Your task to perform on an android device: Clear the shopping cart on amazon. Add razer kraken to the cart on amazon Image 0: 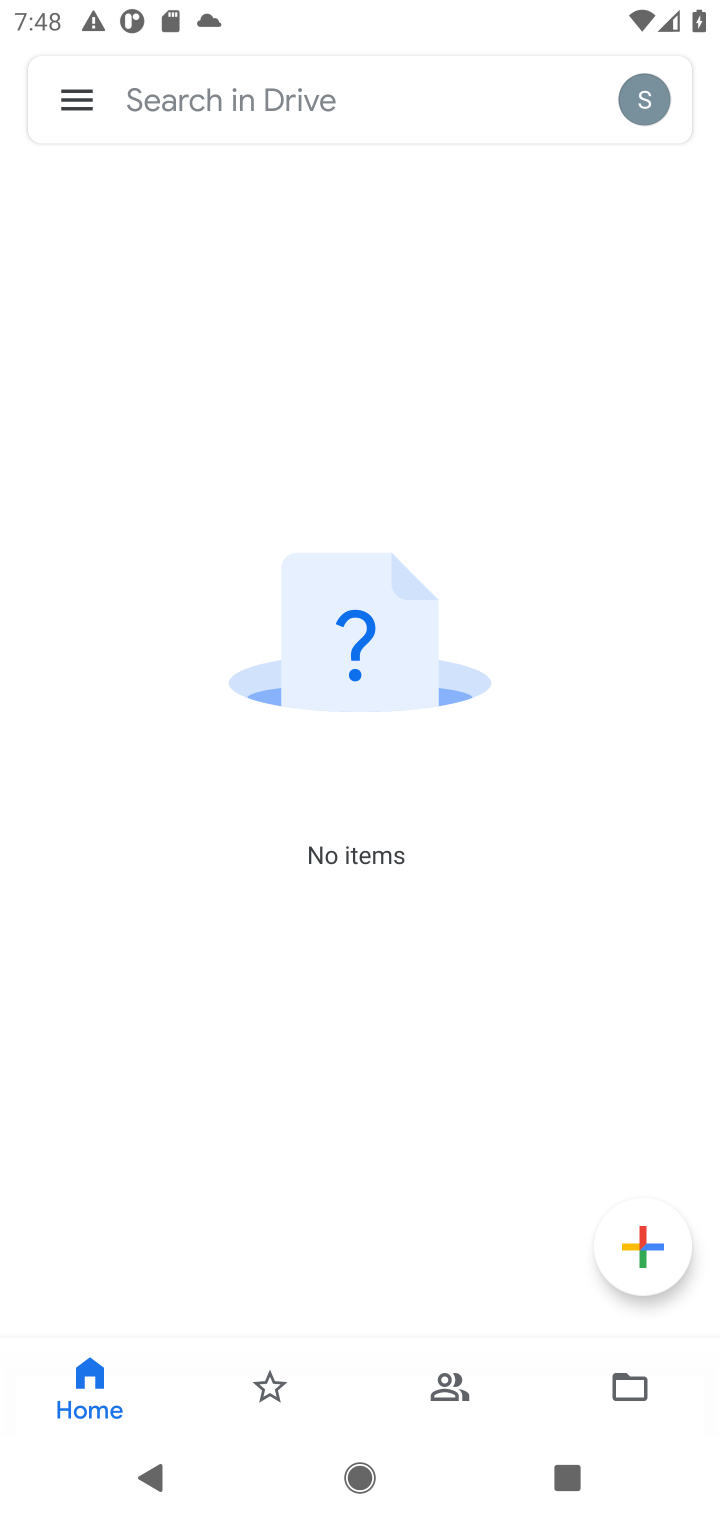
Step 0: press home button
Your task to perform on an android device: Clear the shopping cart on amazon. Add razer kraken to the cart on amazon Image 1: 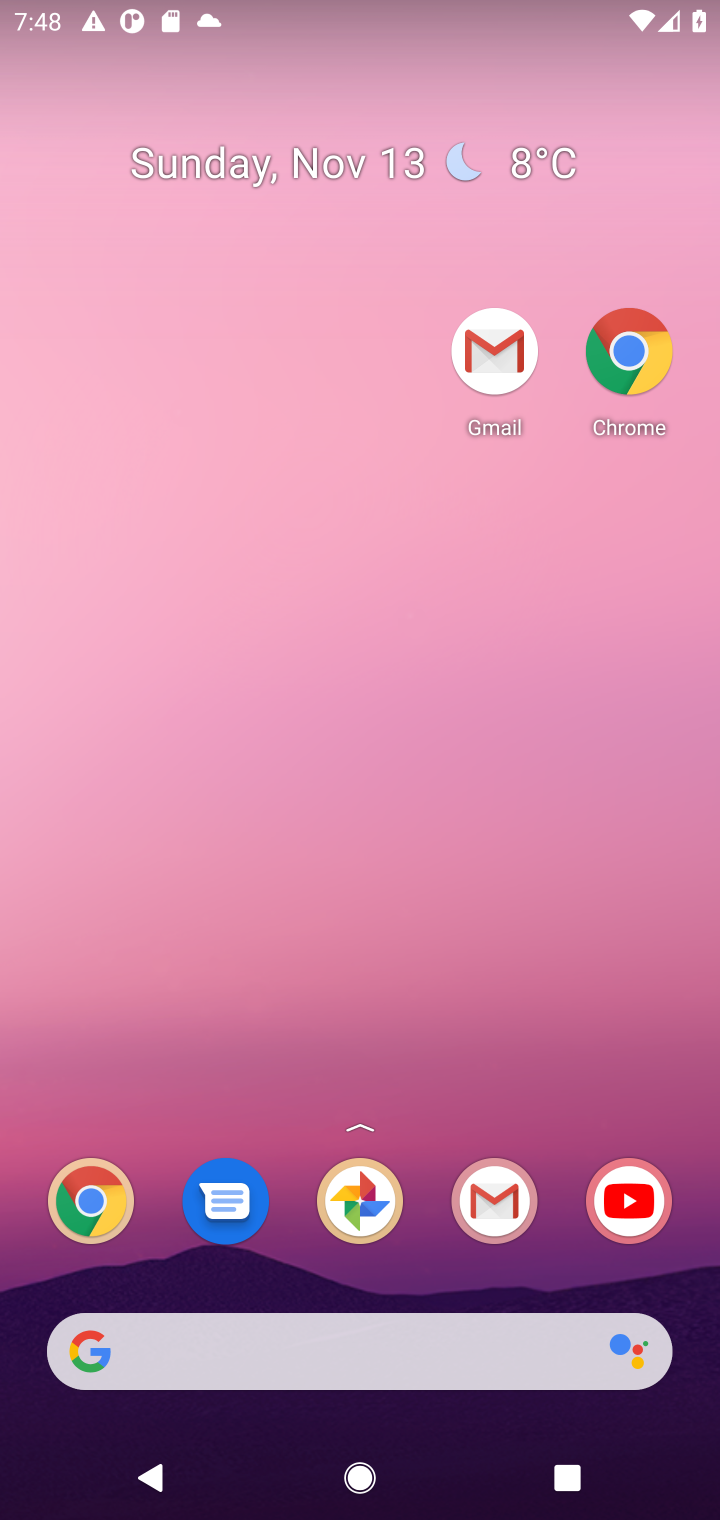
Step 1: drag from (437, 1261) to (337, 438)
Your task to perform on an android device: Clear the shopping cart on amazon. Add razer kraken to the cart on amazon Image 2: 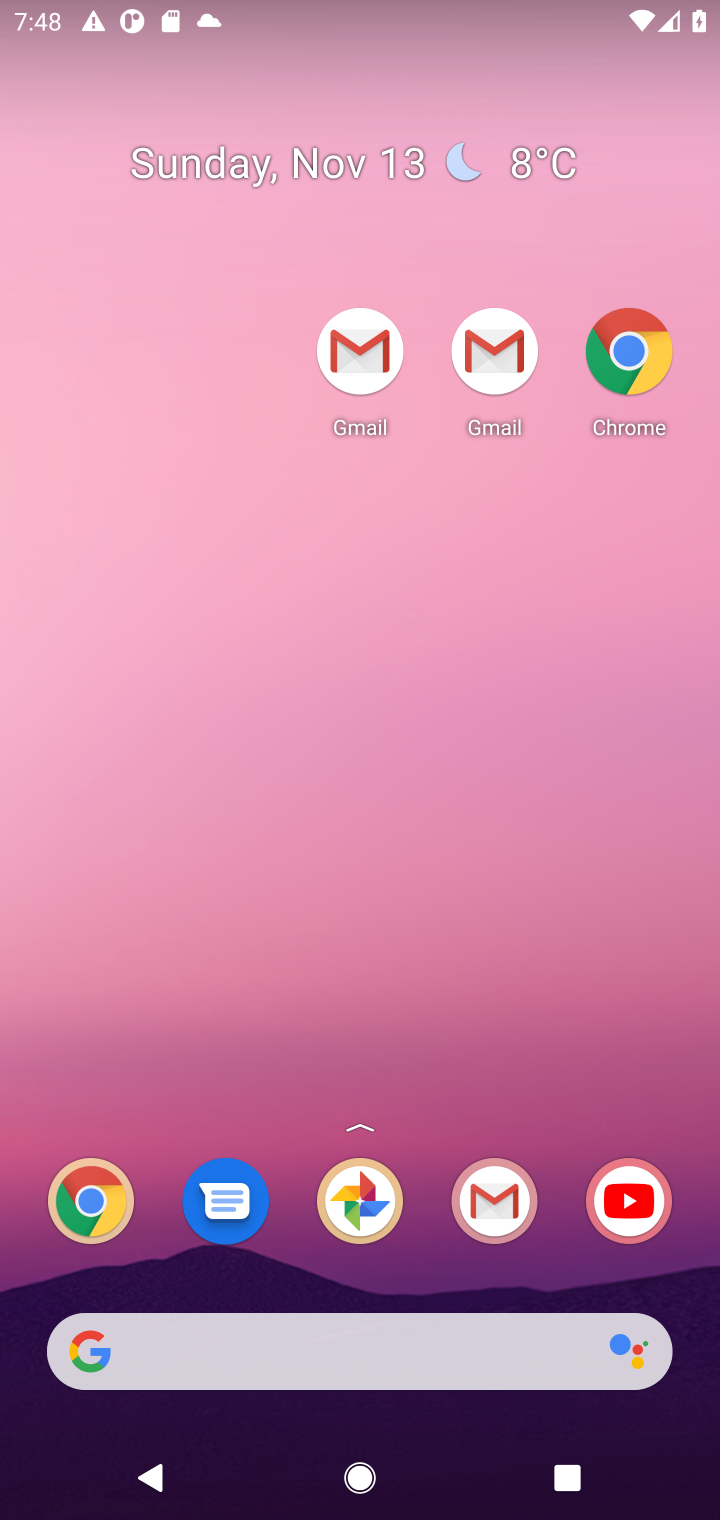
Step 2: drag from (428, 1284) to (294, 322)
Your task to perform on an android device: Clear the shopping cart on amazon. Add razer kraken to the cart on amazon Image 3: 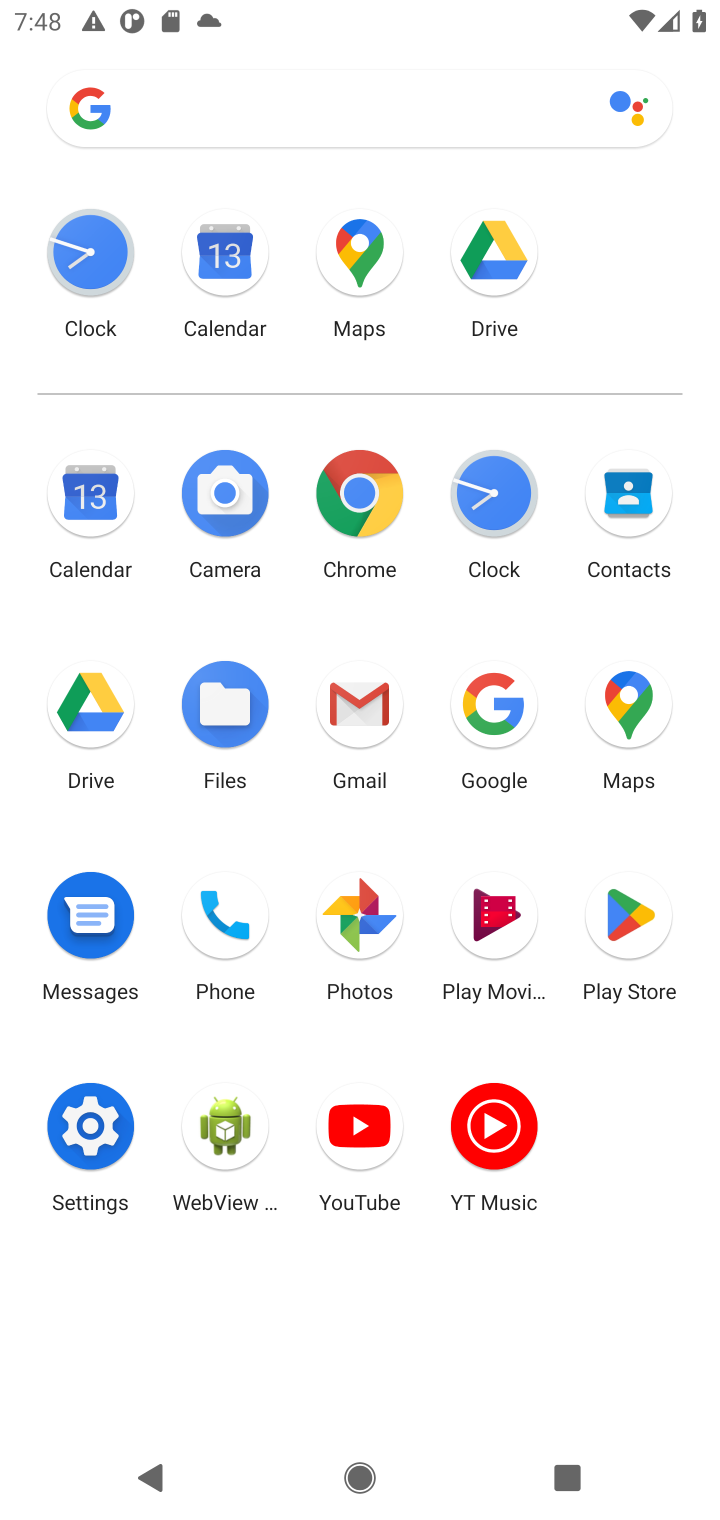
Step 3: click (362, 500)
Your task to perform on an android device: Clear the shopping cart on amazon. Add razer kraken to the cart on amazon Image 4: 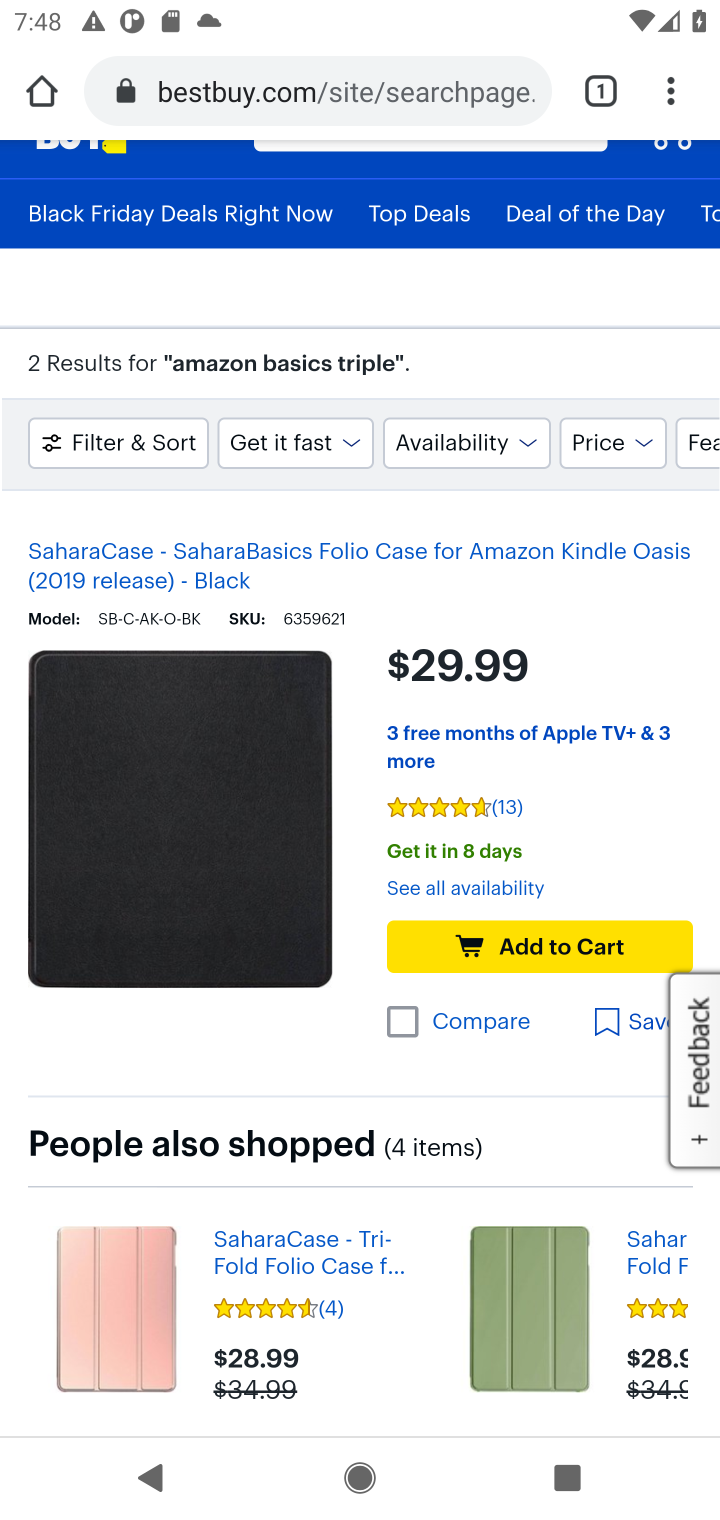
Step 4: click (385, 87)
Your task to perform on an android device: Clear the shopping cart on amazon. Add razer kraken to the cart on amazon Image 5: 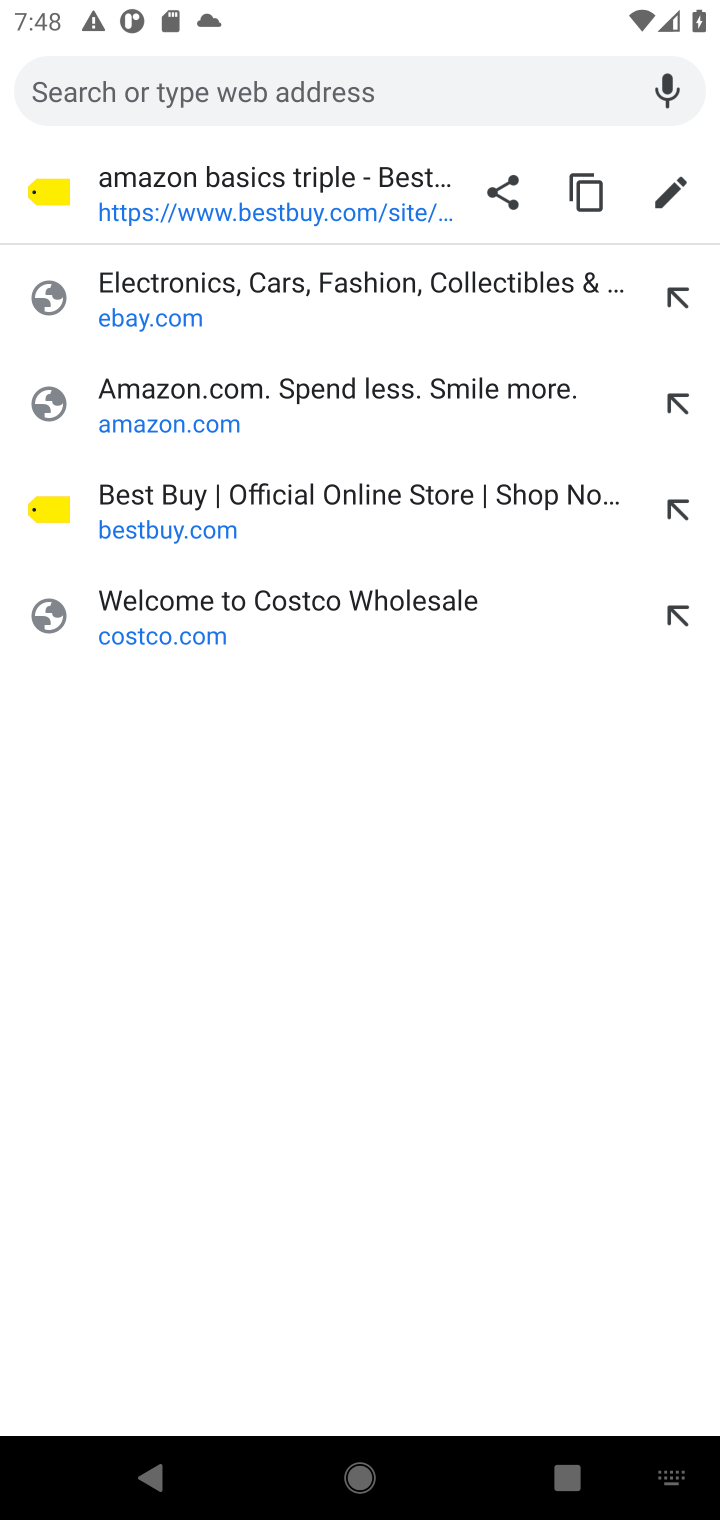
Step 5: type "amazon.com"
Your task to perform on an android device: Clear the shopping cart on amazon. Add razer kraken to the cart on amazon Image 6: 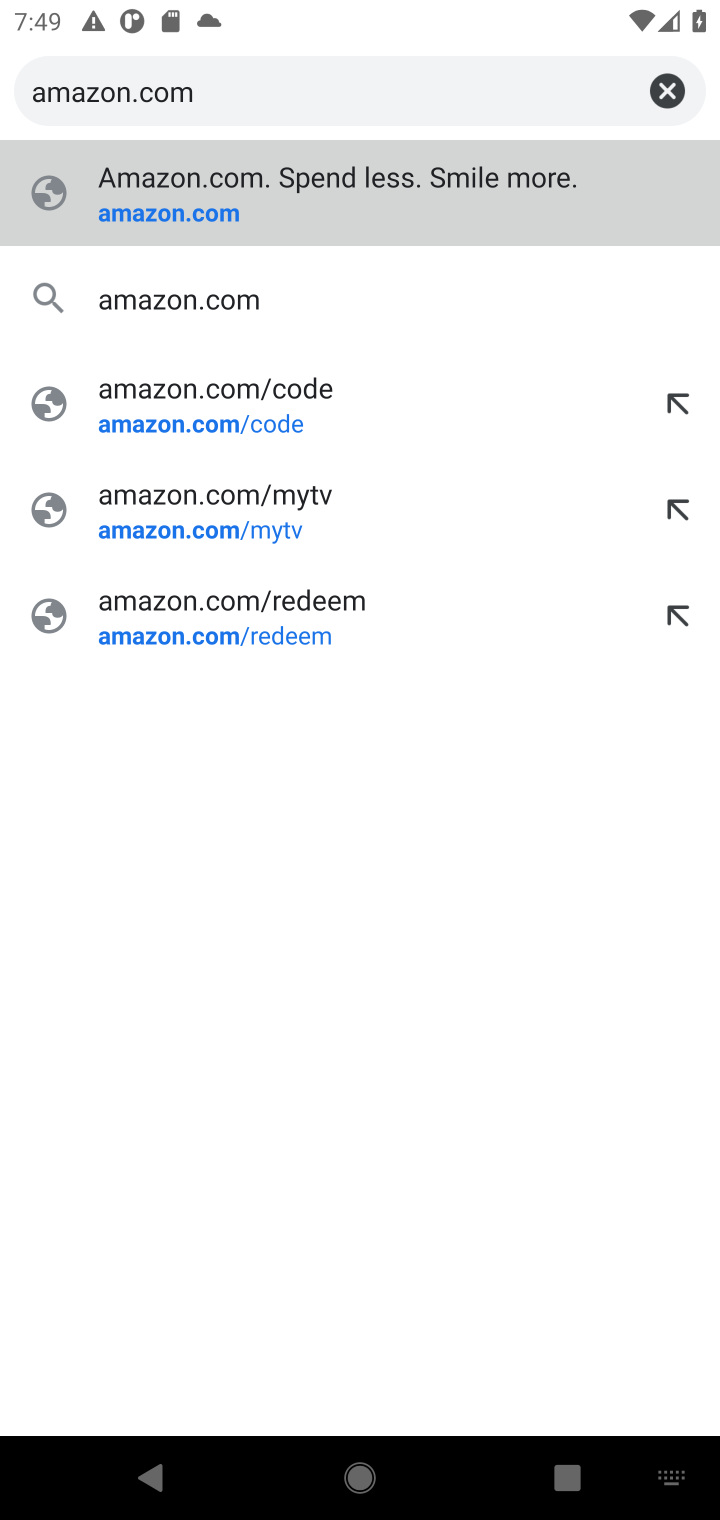
Step 6: press enter
Your task to perform on an android device: Clear the shopping cart on amazon. Add razer kraken to the cart on amazon Image 7: 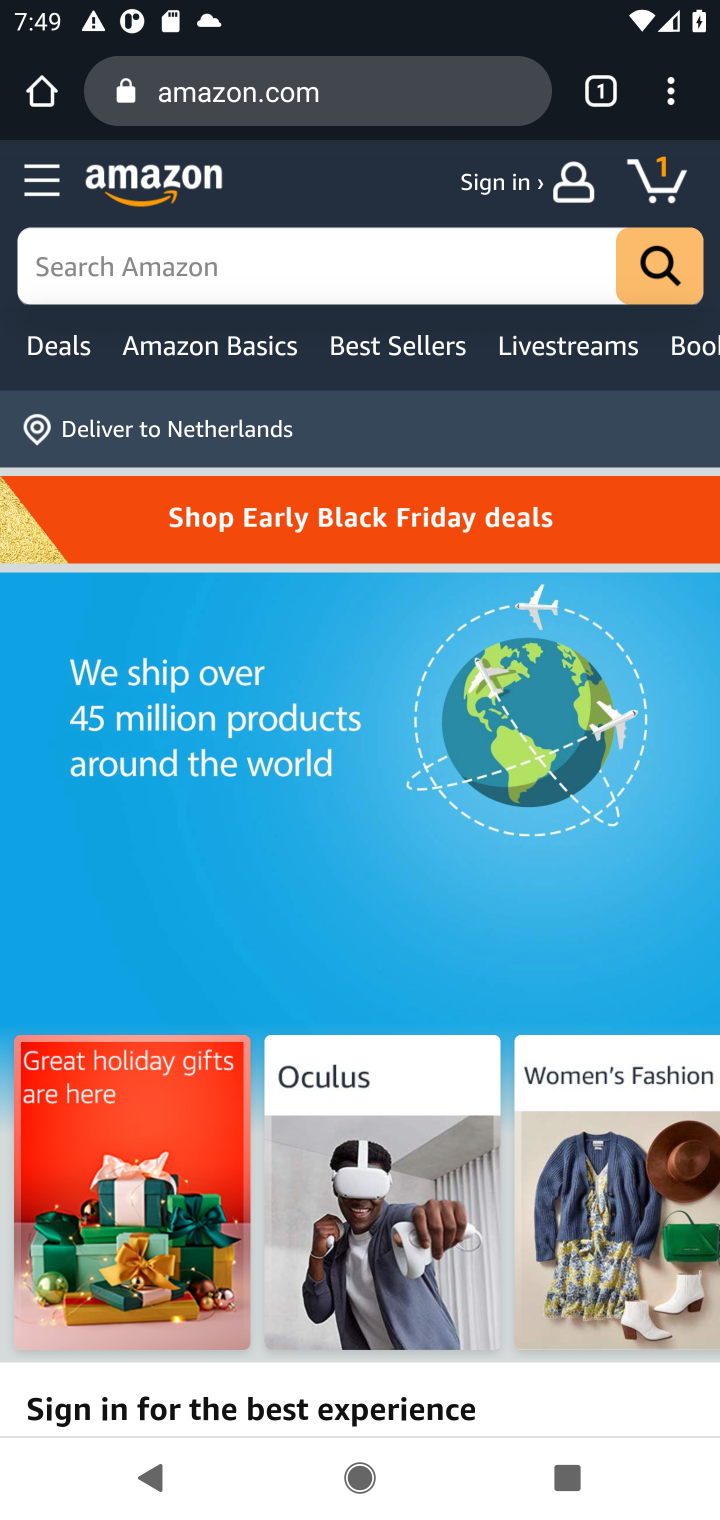
Step 7: click (671, 174)
Your task to perform on an android device: Clear the shopping cart on amazon. Add razer kraken to the cart on amazon Image 8: 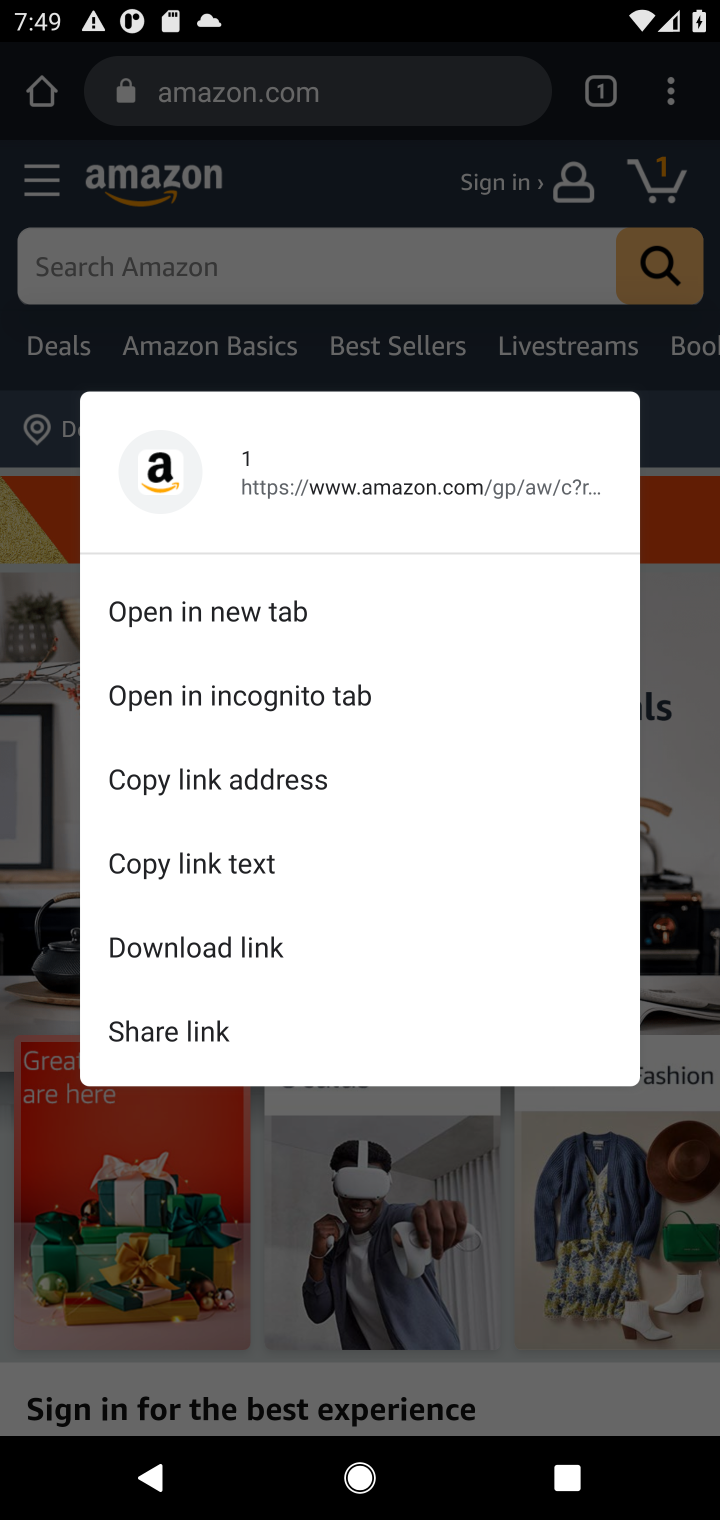
Step 8: click (675, 176)
Your task to perform on an android device: Clear the shopping cart on amazon. Add razer kraken to the cart on amazon Image 9: 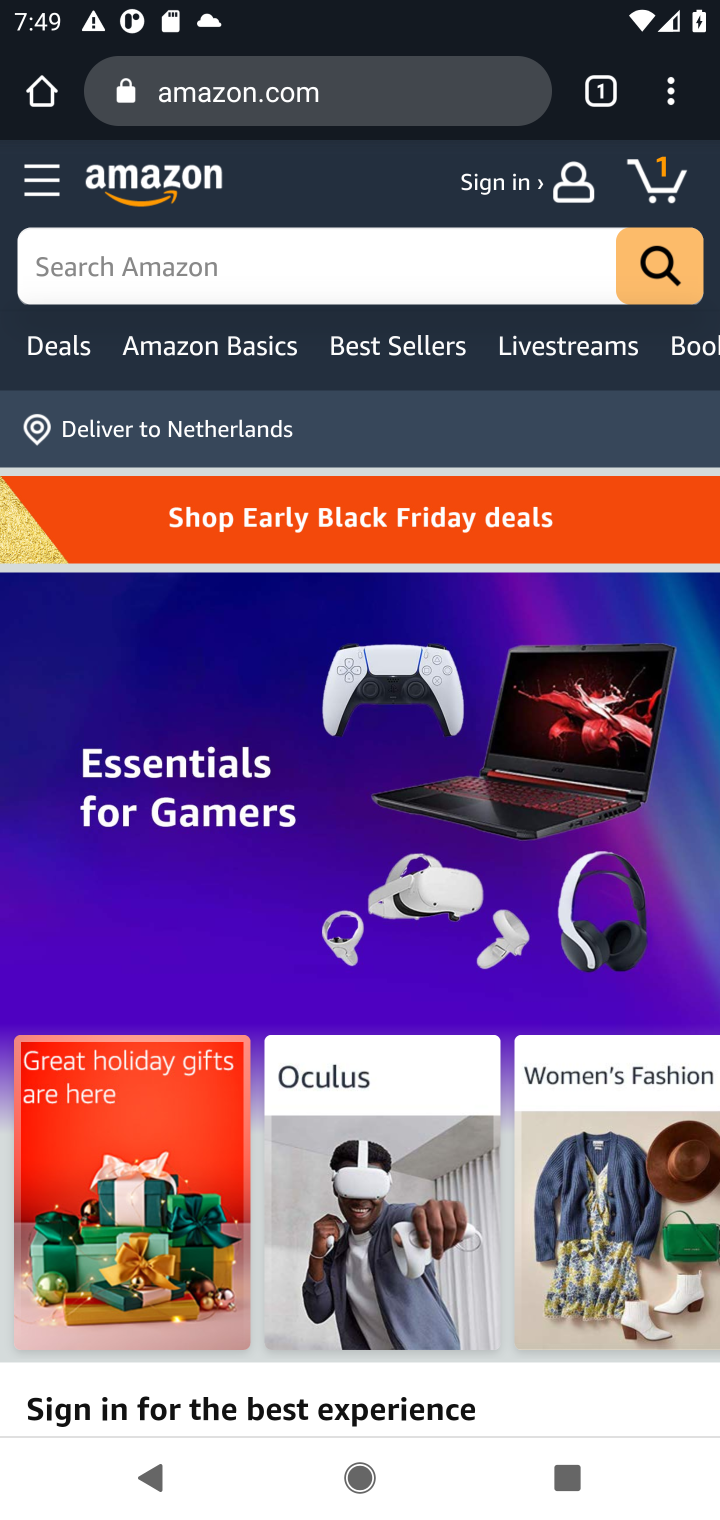
Step 9: click (665, 190)
Your task to perform on an android device: Clear the shopping cart on amazon. Add razer kraken to the cart on amazon Image 10: 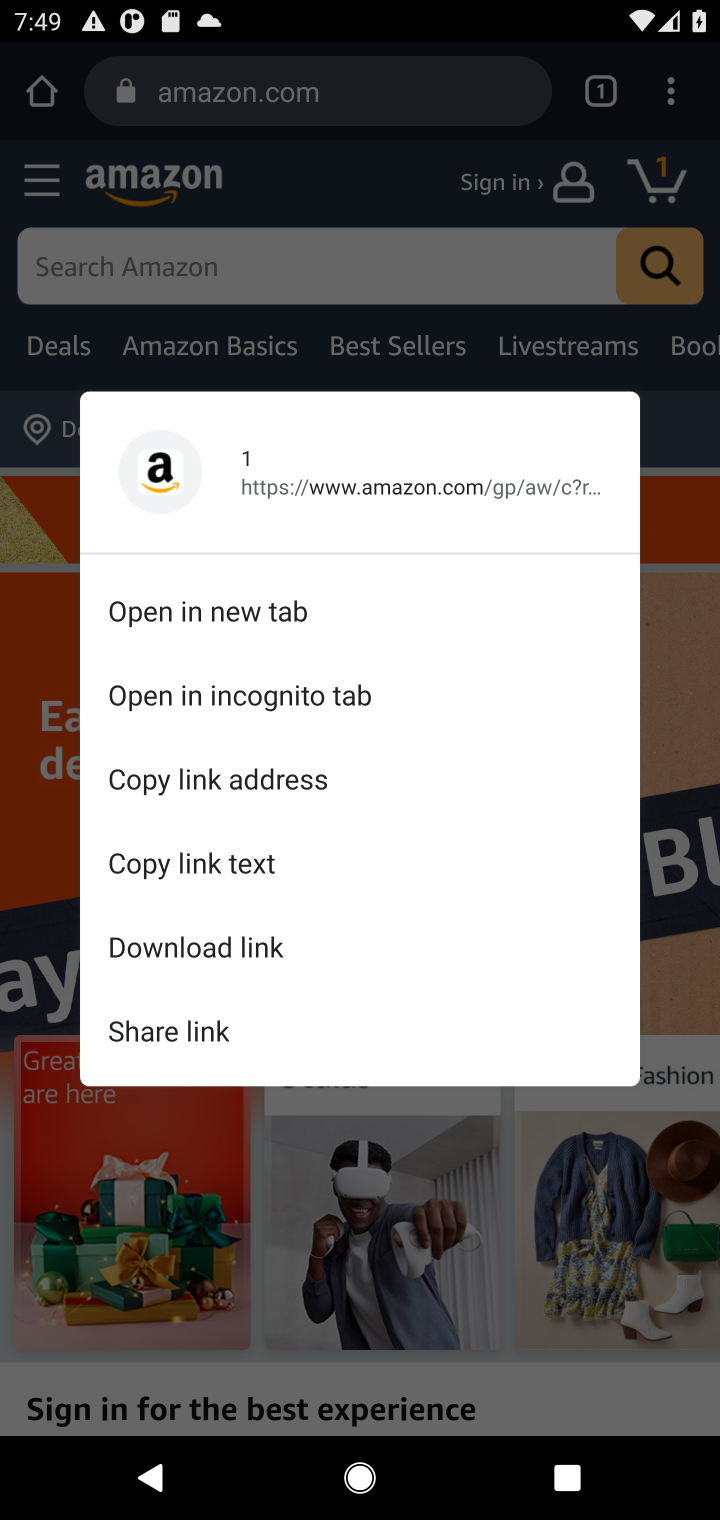
Step 10: click (675, 161)
Your task to perform on an android device: Clear the shopping cart on amazon. Add razer kraken to the cart on amazon Image 11: 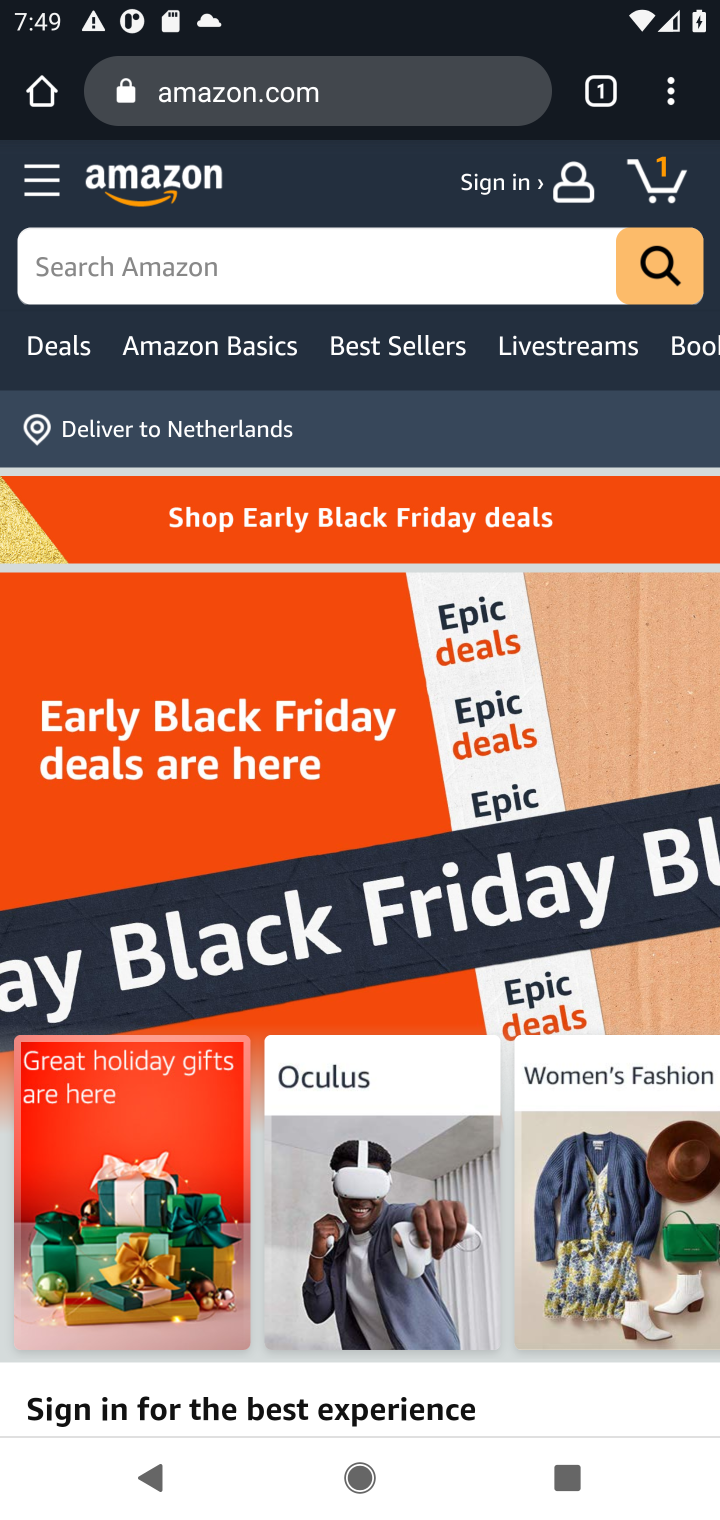
Step 11: click (666, 179)
Your task to perform on an android device: Clear the shopping cart on amazon. Add razer kraken to the cart on amazon Image 12: 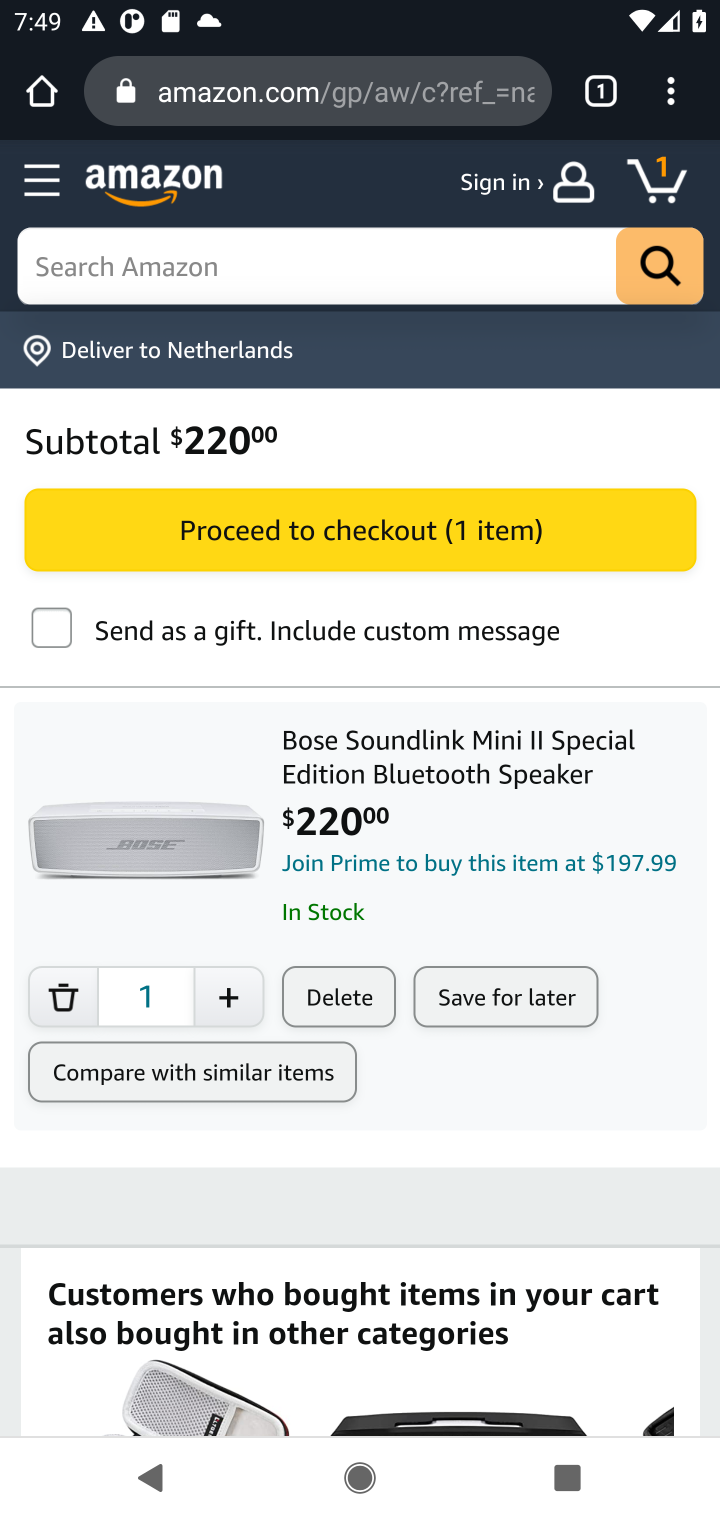
Step 12: click (65, 1000)
Your task to perform on an android device: Clear the shopping cart on amazon. Add razer kraken to the cart on amazon Image 13: 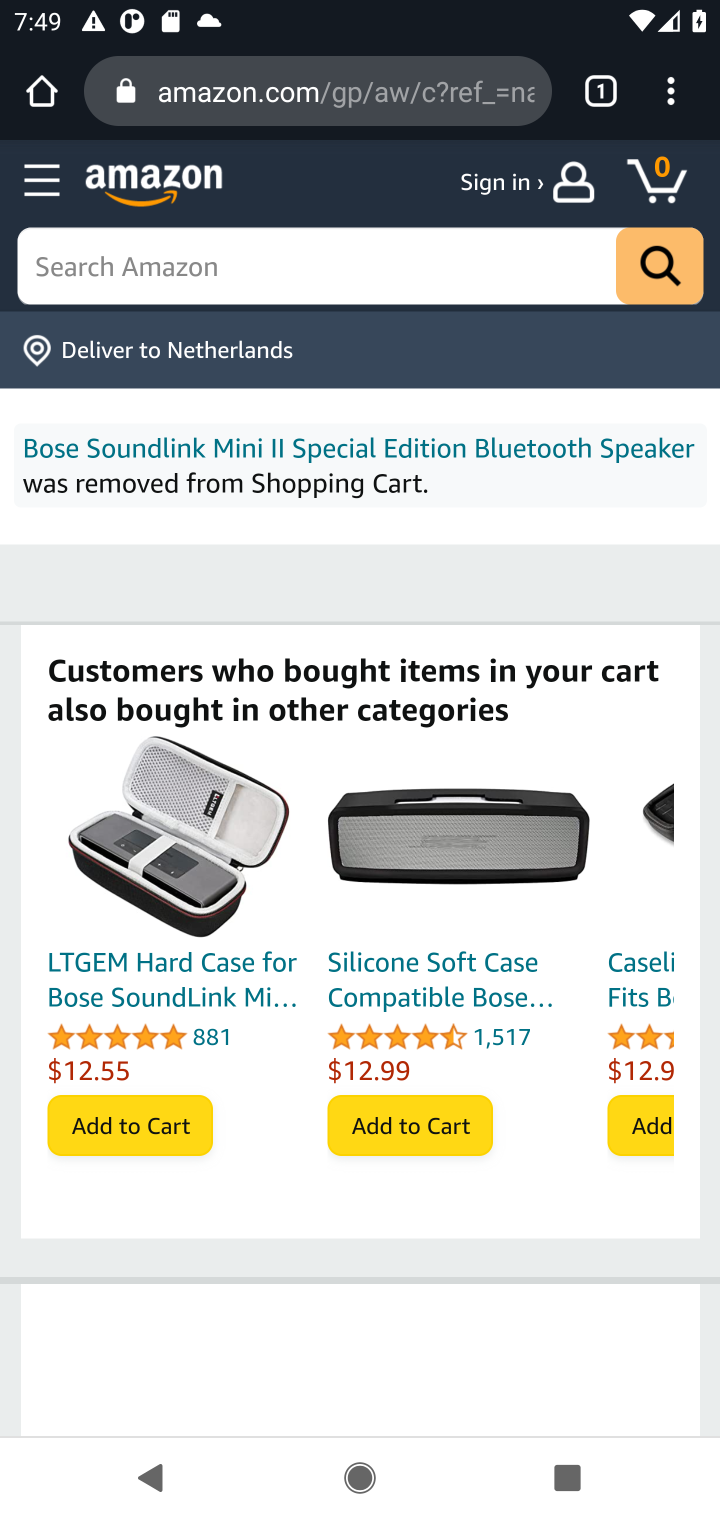
Step 13: click (423, 294)
Your task to perform on an android device: Clear the shopping cart on amazon. Add razer kraken to the cart on amazon Image 14: 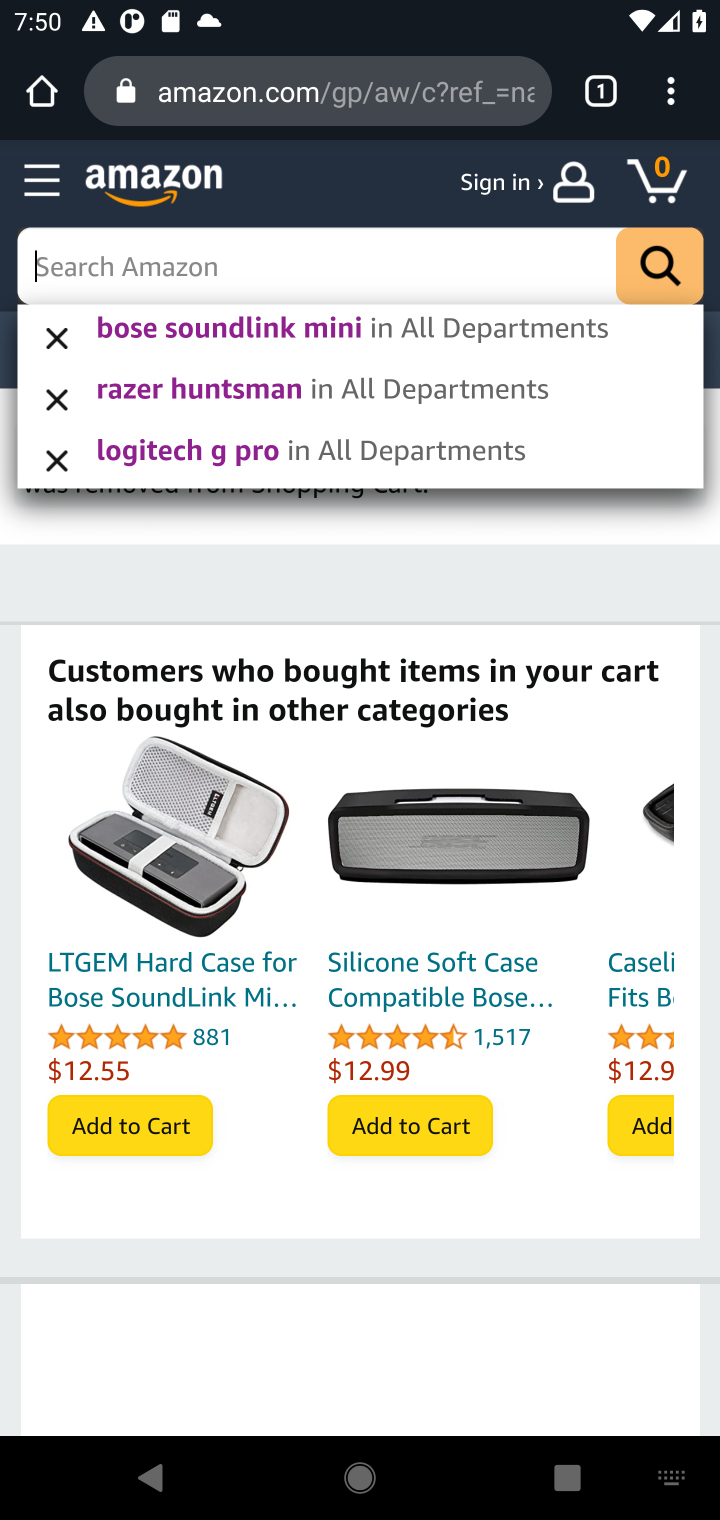
Step 14: type "razer kraken"
Your task to perform on an android device: Clear the shopping cart on amazon. Add razer kraken to the cart on amazon Image 15: 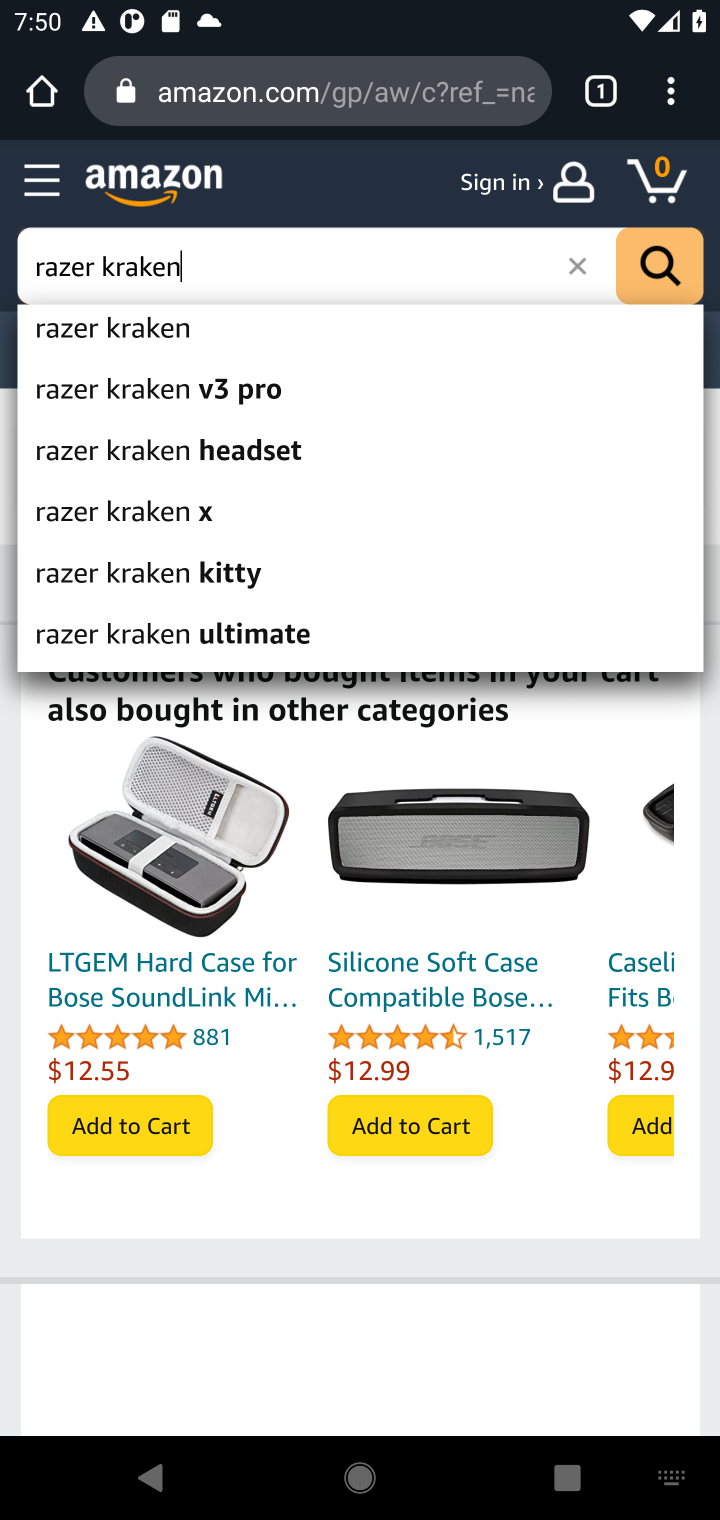
Step 15: press enter
Your task to perform on an android device: Clear the shopping cart on amazon. Add razer kraken to the cart on amazon Image 16: 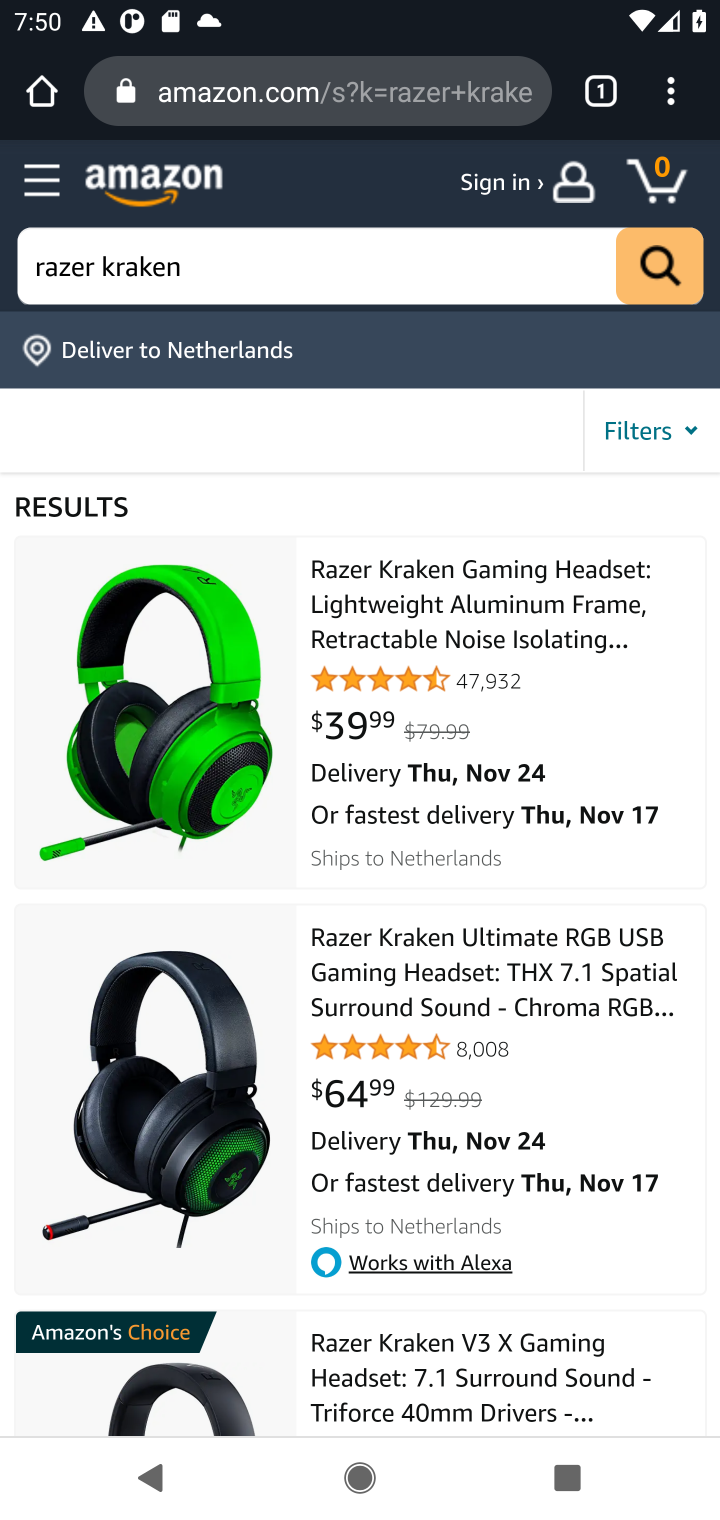
Step 16: click (414, 619)
Your task to perform on an android device: Clear the shopping cart on amazon. Add razer kraken to the cart on amazon Image 17: 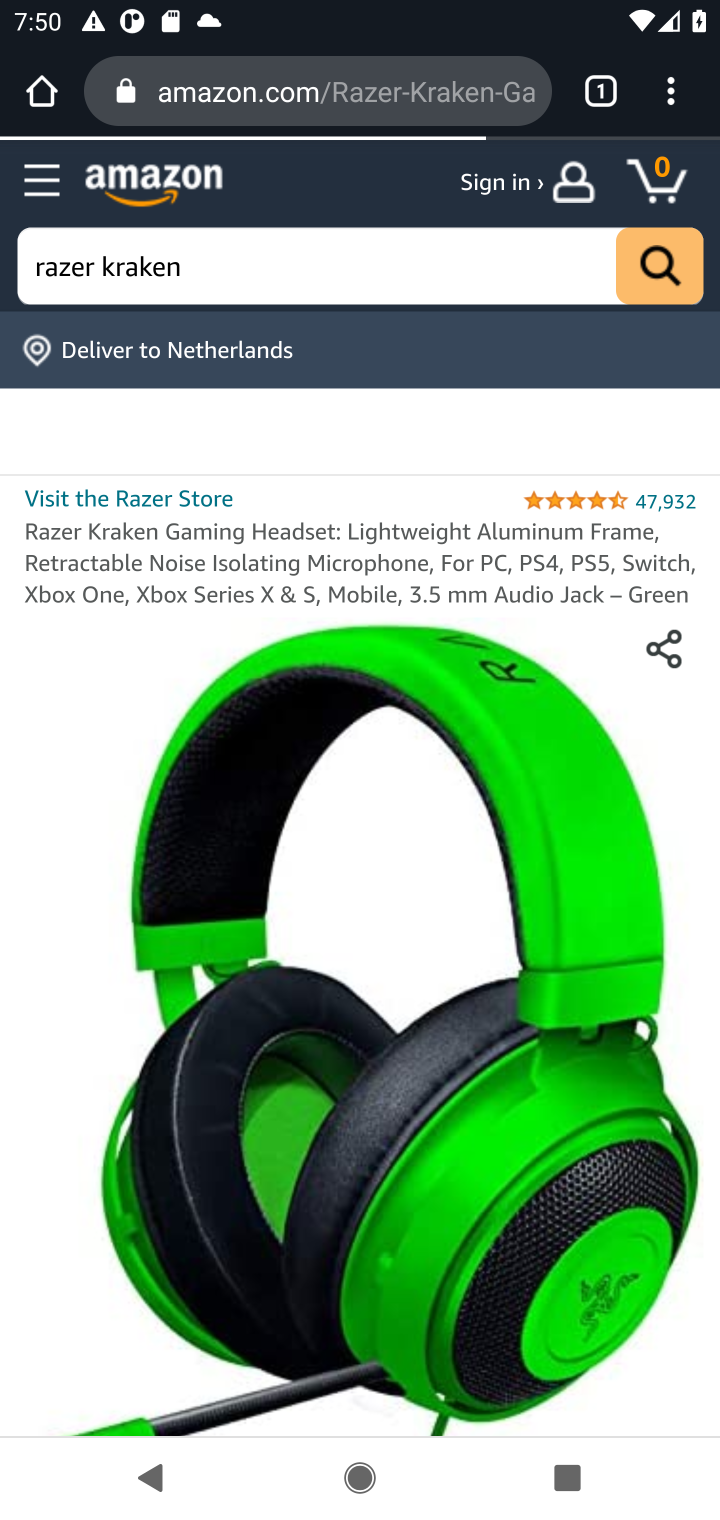
Step 17: drag from (538, 1234) to (243, 597)
Your task to perform on an android device: Clear the shopping cart on amazon. Add razer kraken to the cart on amazon Image 18: 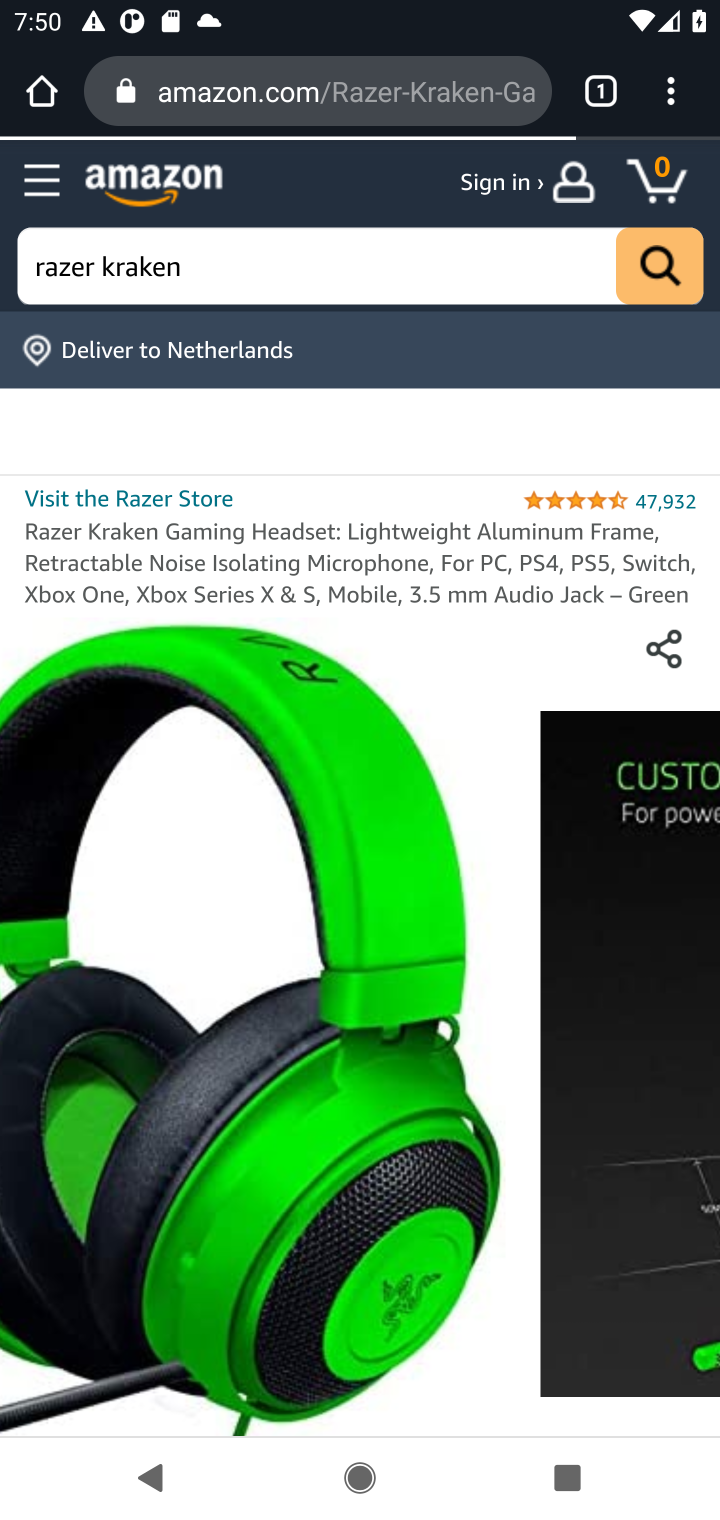
Step 18: drag from (197, 1146) to (417, 465)
Your task to perform on an android device: Clear the shopping cart on amazon. Add razer kraken to the cart on amazon Image 19: 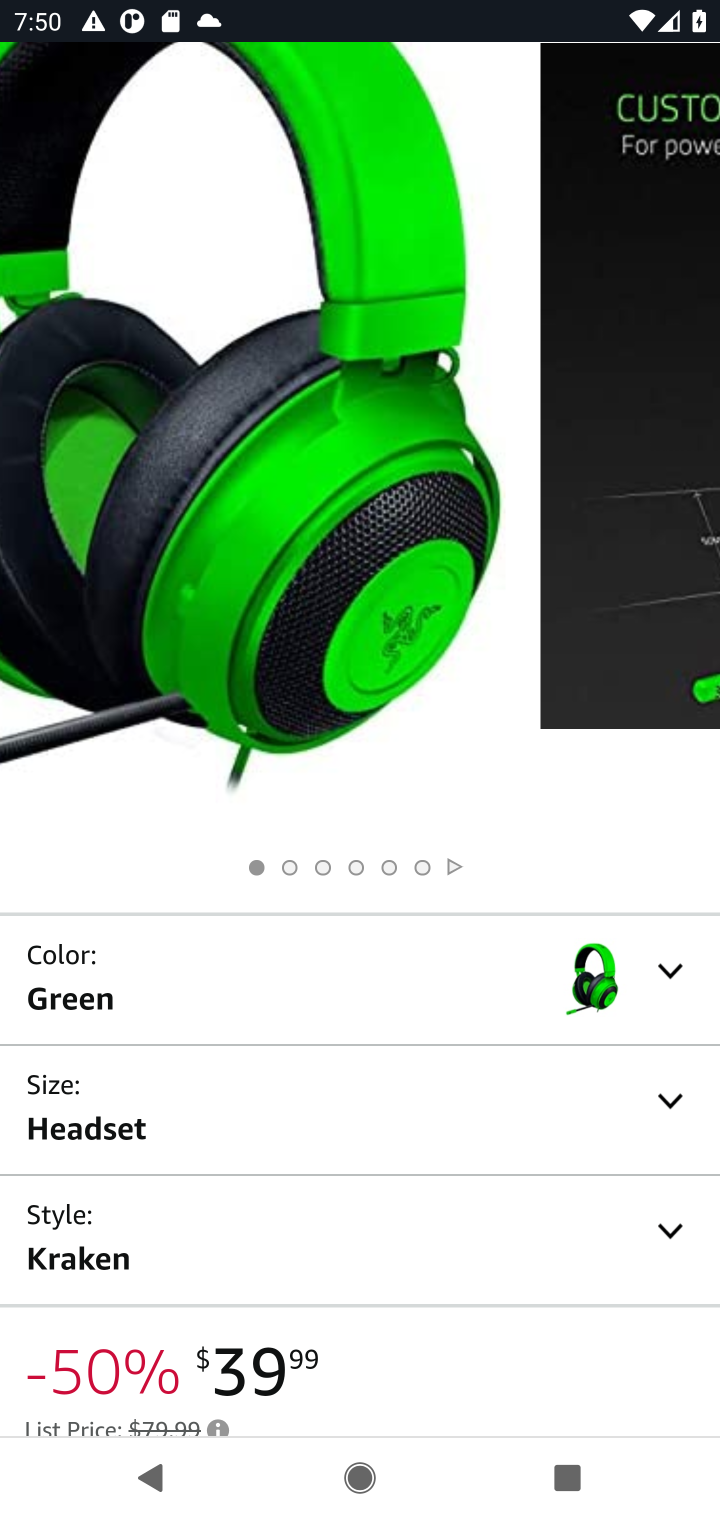
Step 19: drag from (334, 1109) to (330, 356)
Your task to perform on an android device: Clear the shopping cart on amazon. Add razer kraken to the cart on amazon Image 20: 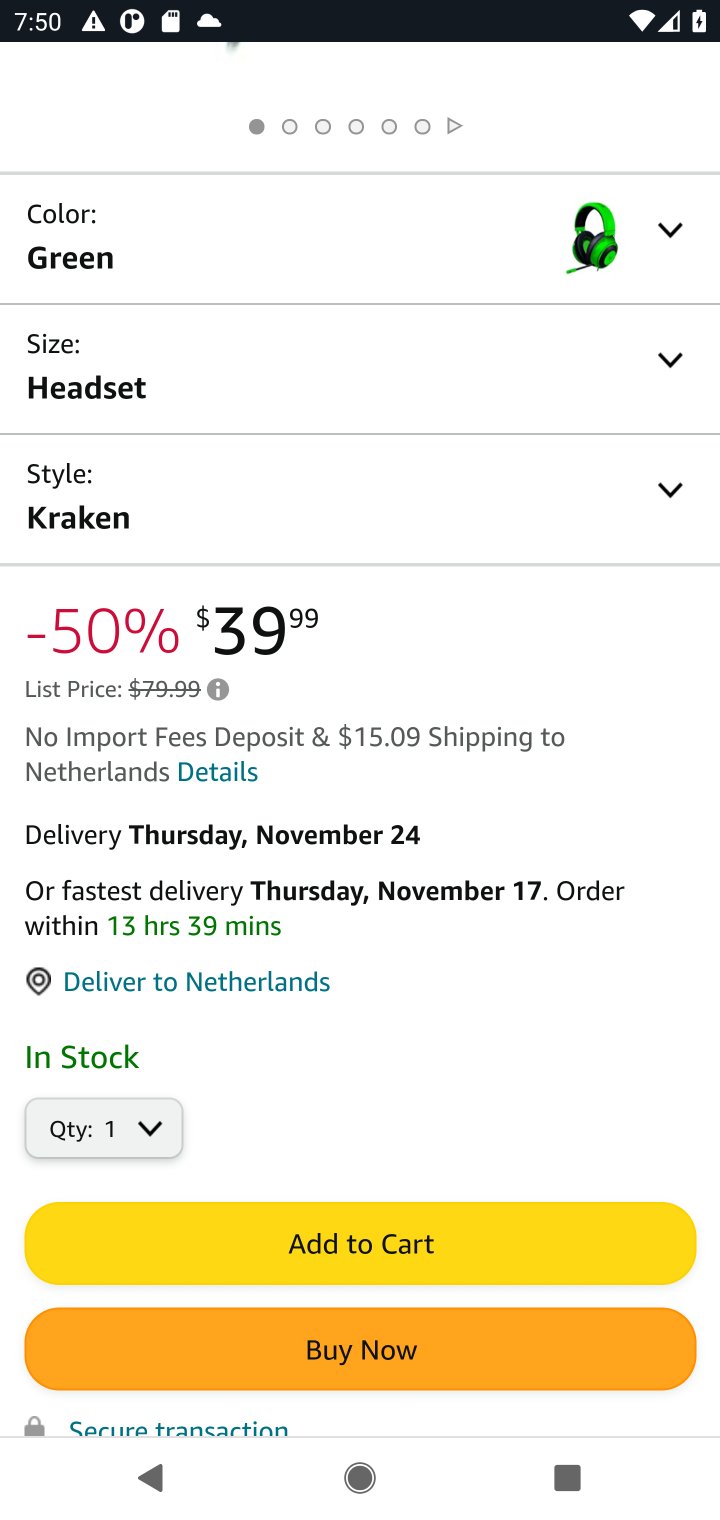
Step 20: click (454, 1281)
Your task to perform on an android device: Clear the shopping cart on amazon. Add razer kraken to the cart on amazon Image 21: 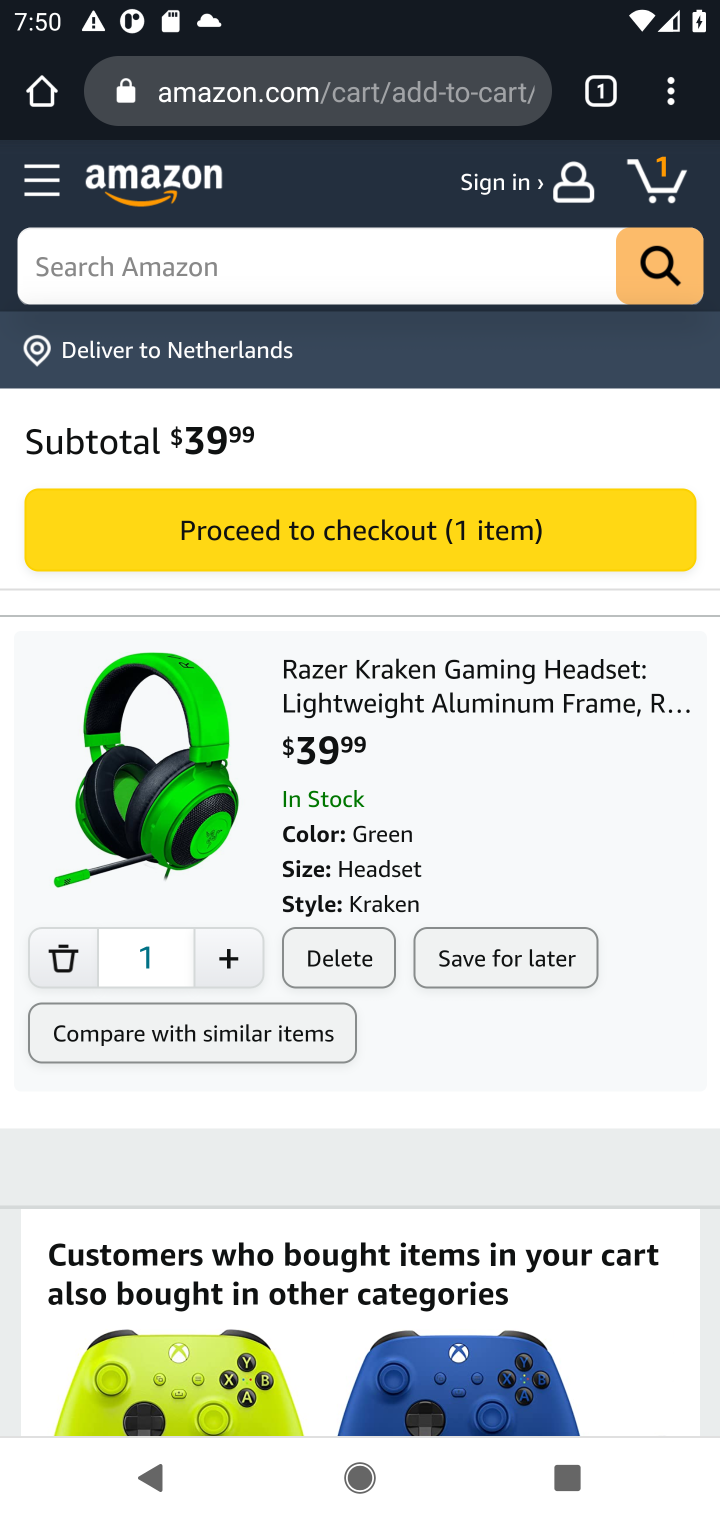
Step 21: task complete